Your task to perform on an android device: turn on the 24-hour format for clock Image 0: 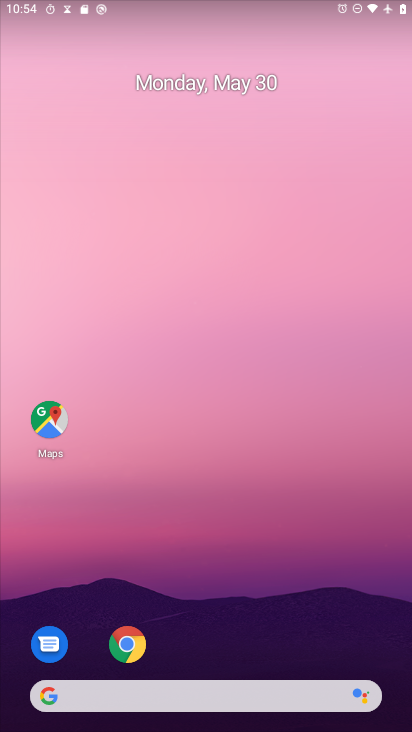
Step 0: drag from (254, 659) to (253, 78)
Your task to perform on an android device: turn on the 24-hour format for clock Image 1: 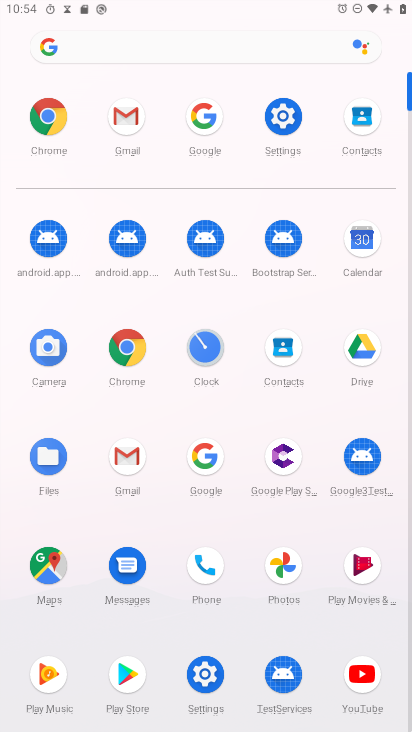
Step 1: click (201, 343)
Your task to perform on an android device: turn on the 24-hour format for clock Image 2: 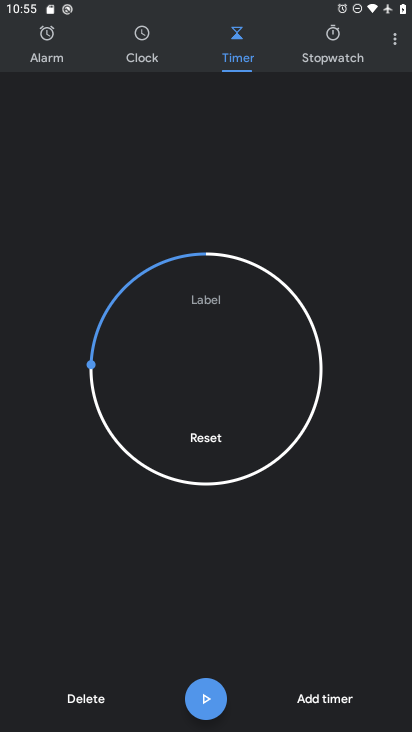
Step 2: click (394, 34)
Your task to perform on an android device: turn on the 24-hour format for clock Image 3: 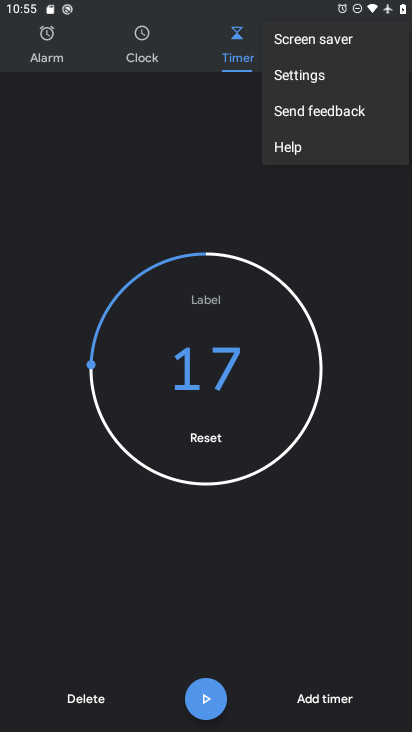
Step 3: click (307, 76)
Your task to perform on an android device: turn on the 24-hour format for clock Image 4: 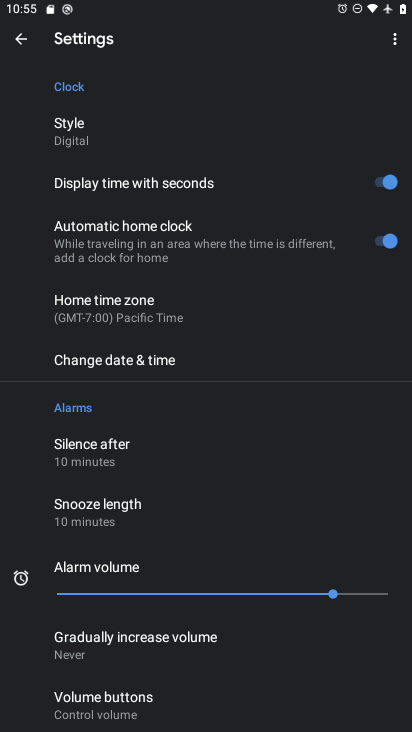
Step 4: click (156, 362)
Your task to perform on an android device: turn on the 24-hour format for clock Image 5: 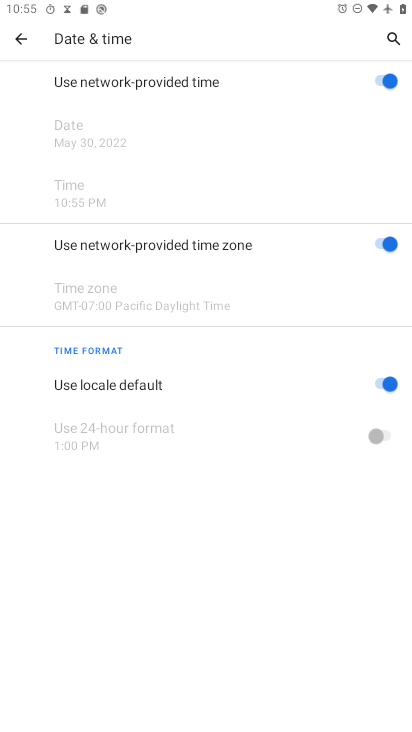
Step 5: click (379, 381)
Your task to perform on an android device: turn on the 24-hour format for clock Image 6: 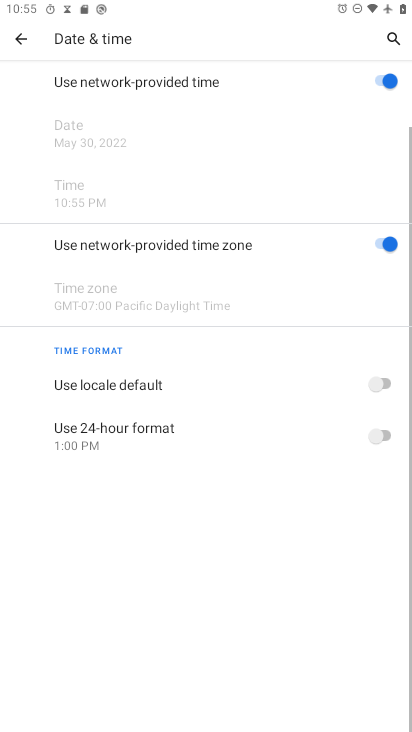
Step 6: click (377, 441)
Your task to perform on an android device: turn on the 24-hour format for clock Image 7: 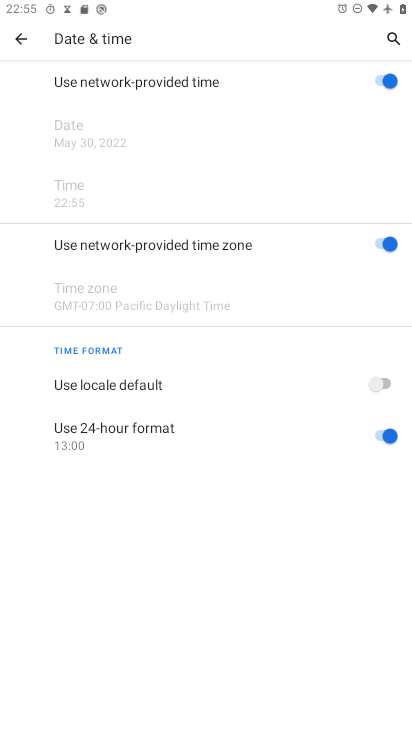
Step 7: task complete